Your task to perform on an android device: Check the news Image 0: 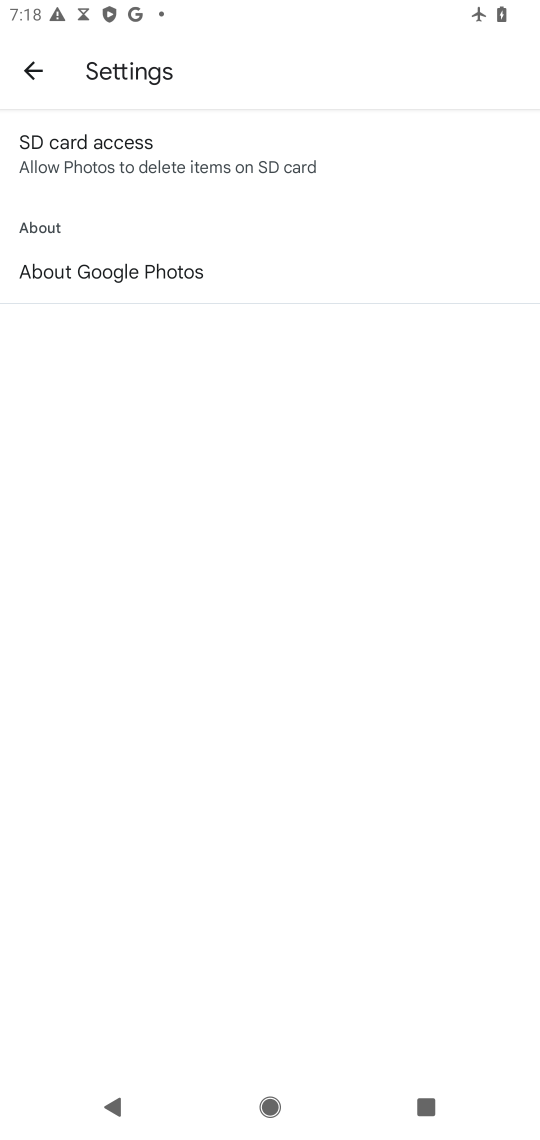
Step 0: press home button
Your task to perform on an android device: Check the news Image 1: 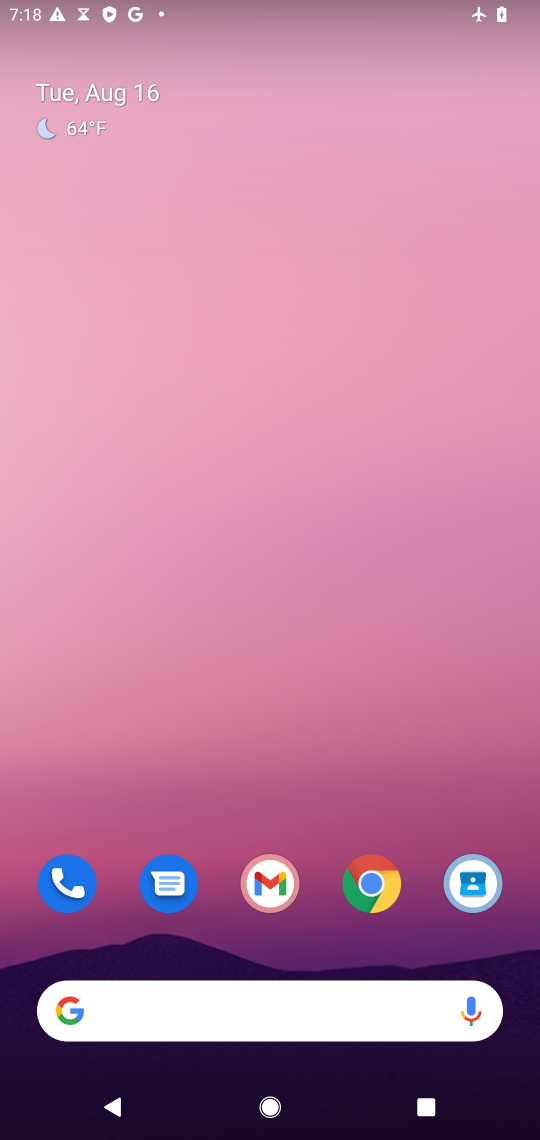
Step 1: drag from (180, 1001) to (315, 281)
Your task to perform on an android device: Check the news Image 2: 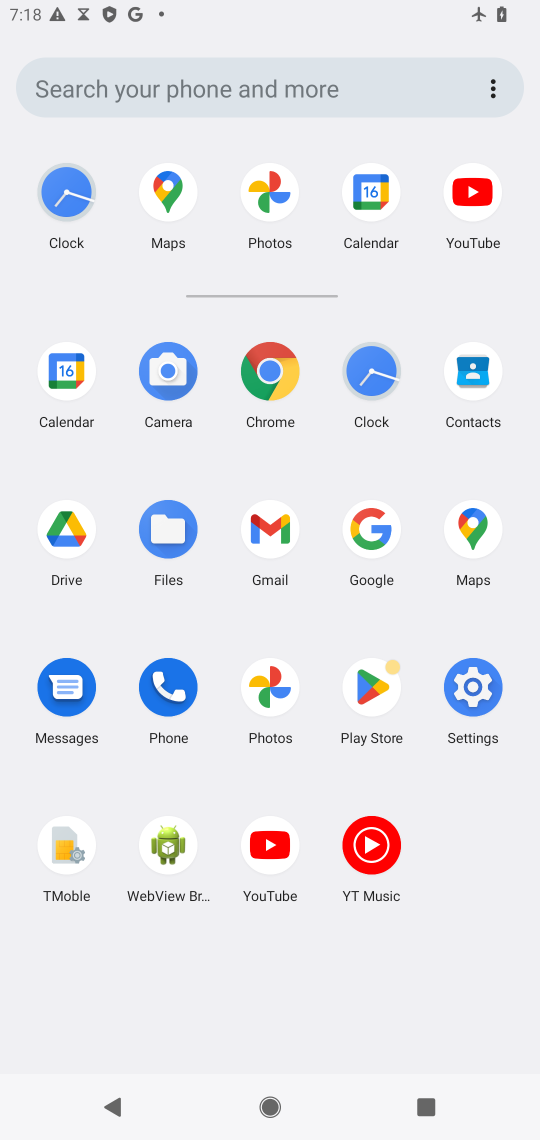
Step 2: click (370, 526)
Your task to perform on an android device: Check the news Image 3: 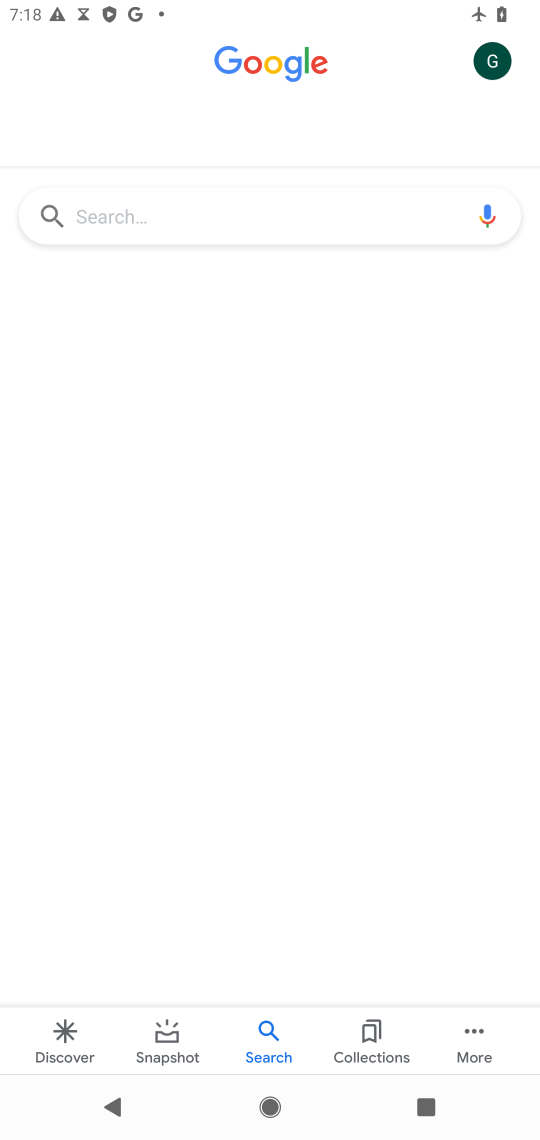
Step 3: click (294, 200)
Your task to perform on an android device: Check the news Image 4: 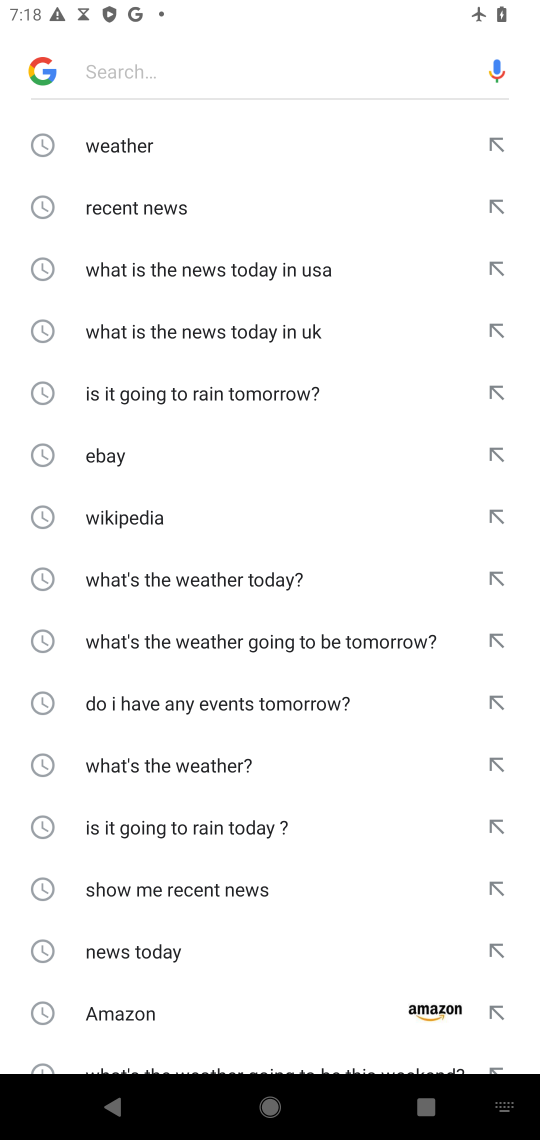
Step 4: type "news"
Your task to perform on an android device: Check the news Image 5: 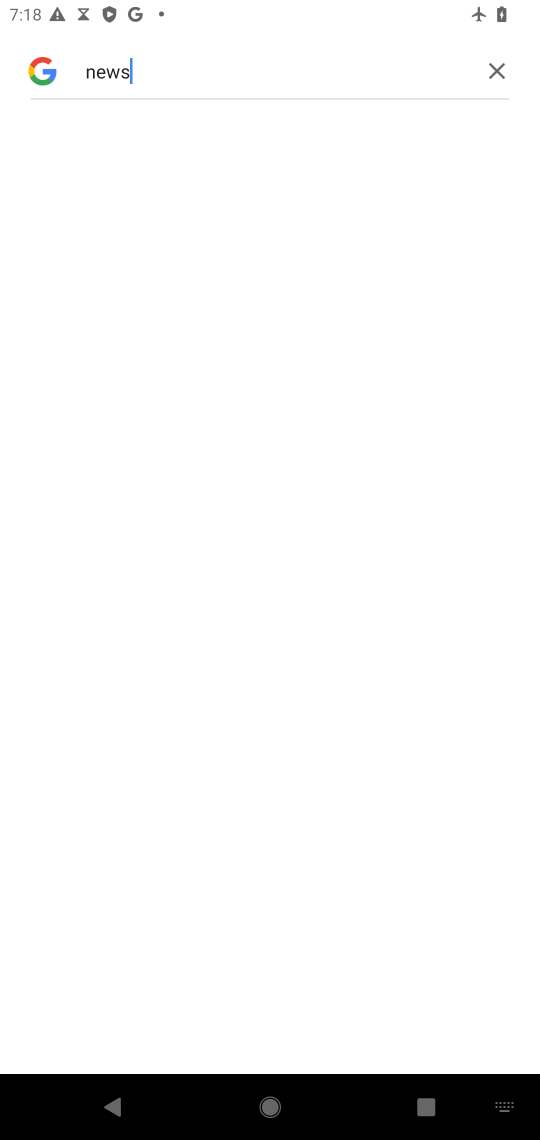
Step 5: task complete